Your task to perform on an android device: Open Google Maps Image 0: 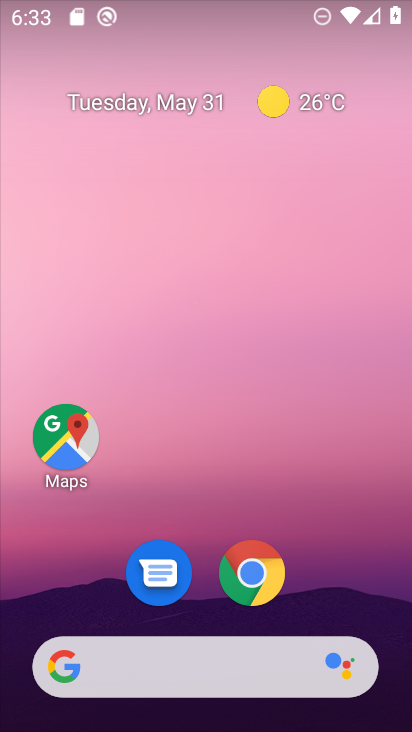
Step 0: drag from (378, 633) to (242, 7)
Your task to perform on an android device: Open Google Maps Image 1: 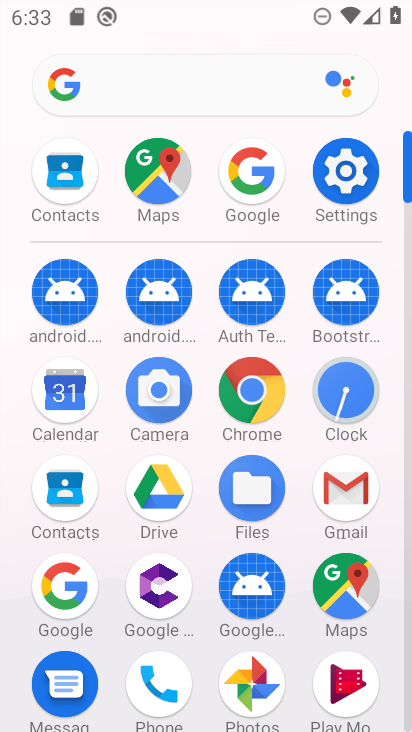
Step 1: click (180, 176)
Your task to perform on an android device: Open Google Maps Image 2: 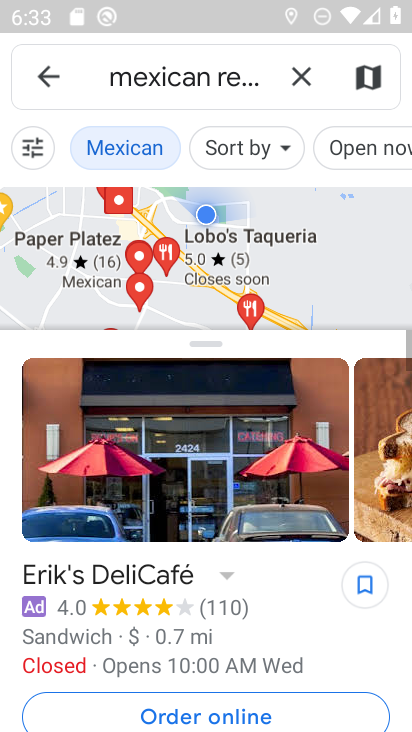
Step 2: click (309, 79)
Your task to perform on an android device: Open Google Maps Image 3: 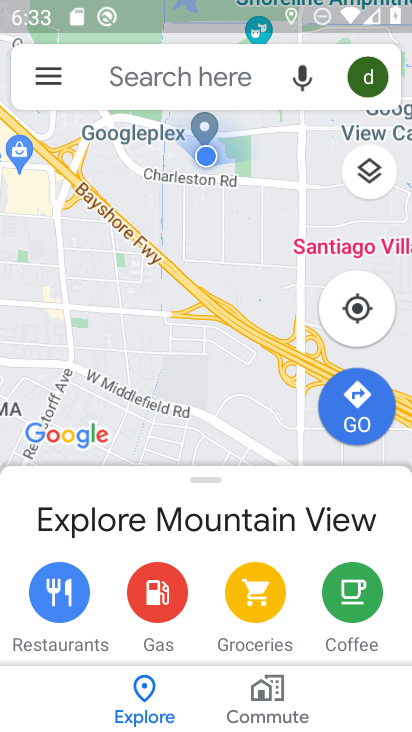
Step 3: task complete